Your task to perform on an android device: add a contact in the contacts app Image 0: 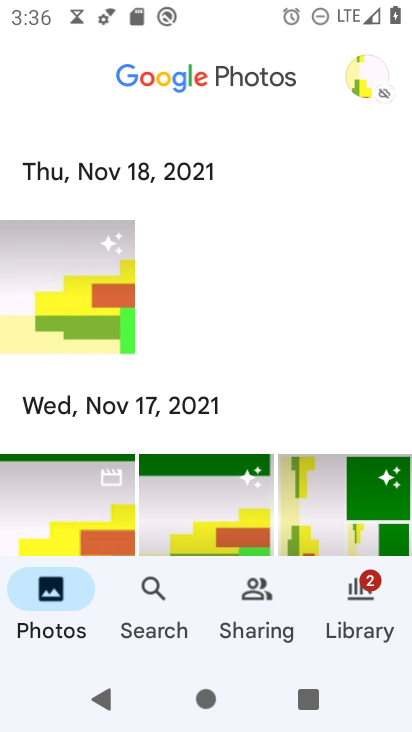
Step 0: press home button
Your task to perform on an android device: add a contact in the contacts app Image 1: 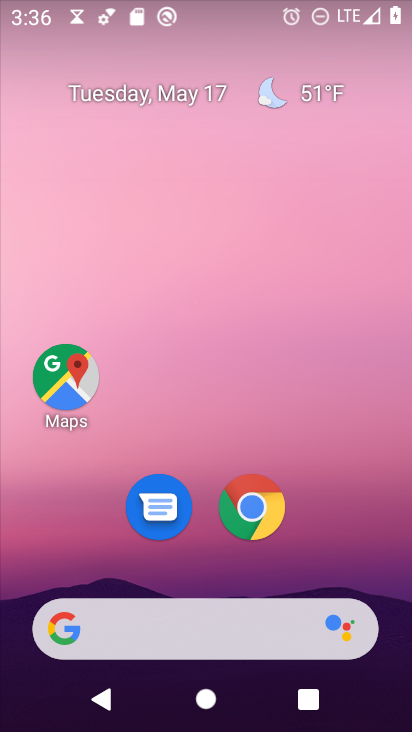
Step 1: drag from (328, 569) to (271, 53)
Your task to perform on an android device: add a contact in the contacts app Image 2: 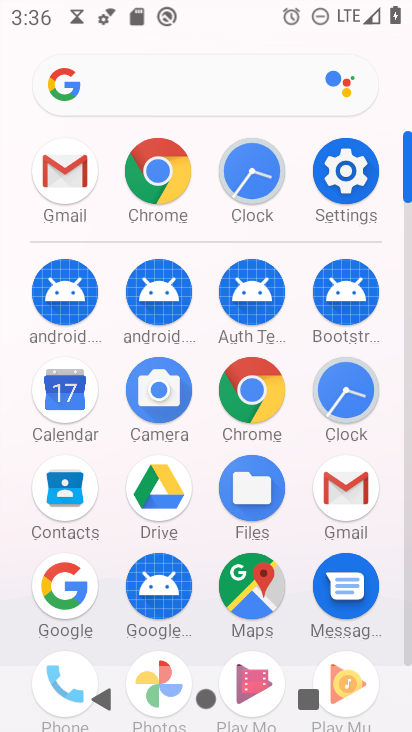
Step 2: click (61, 486)
Your task to perform on an android device: add a contact in the contacts app Image 3: 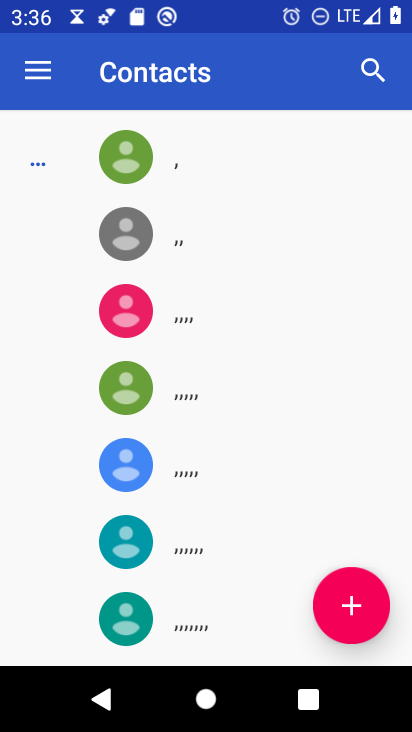
Step 3: click (348, 598)
Your task to perform on an android device: add a contact in the contacts app Image 4: 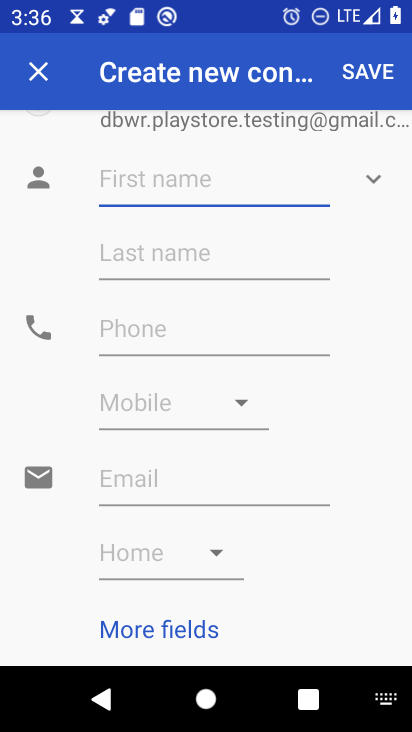
Step 4: type "qazxswedcvfr"
Your task to perform on an android device: add a contact in the contacts app Image 5: 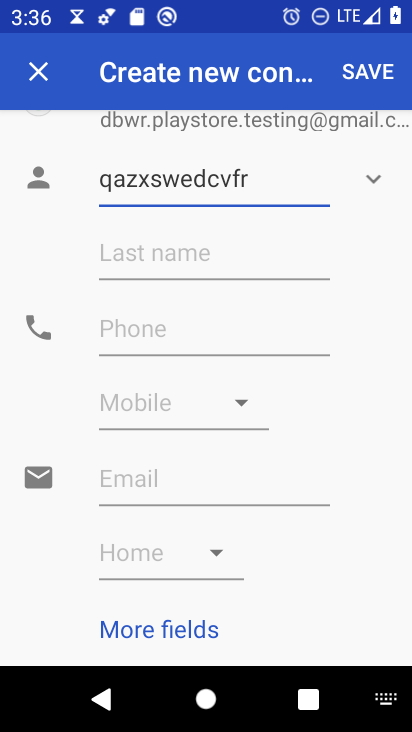
Step 5: click (126, 343)
Your task to perform on an android device: add a contact in the contacts app Image 6: 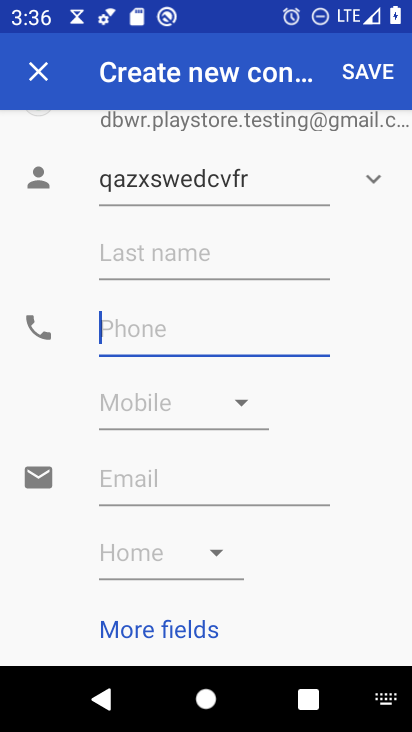
Step 6: type "23234566778"
Your task to perform on an android device: add a contact in the contacts app Image 7: 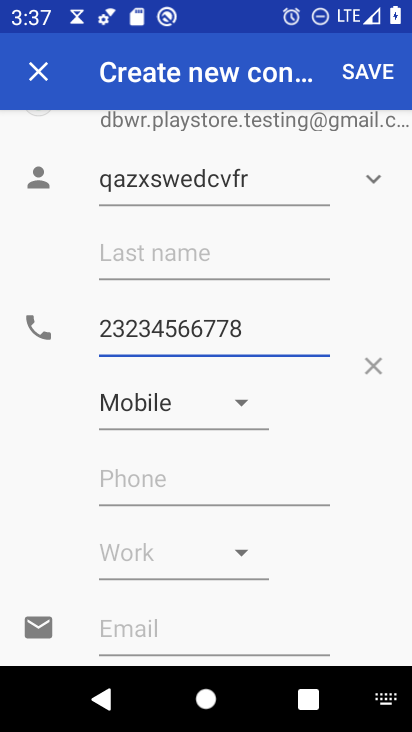
Step 7: click (384, 63)
Your task to perform on an android device: add a contact in the contacts app Image 8: 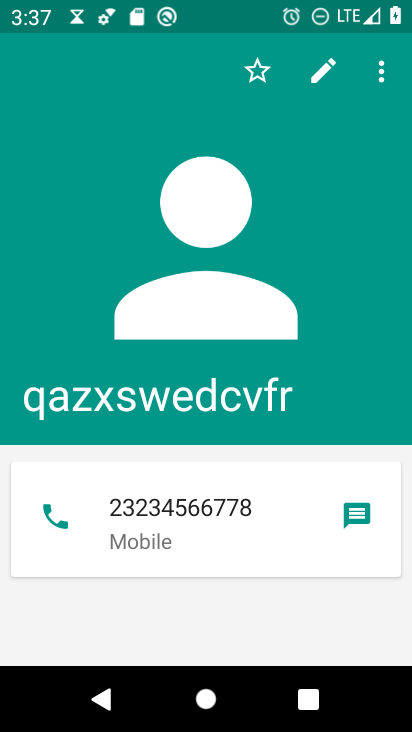
Step 8: task complete